Your task to perform on an android device: change the clock display to analog Image 0: 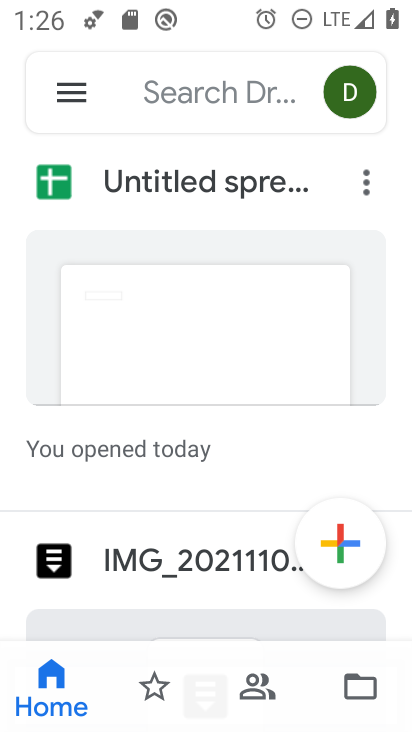
Step 0: press home button
Your task to perform on an android device: change the clock display to analog Image 1: 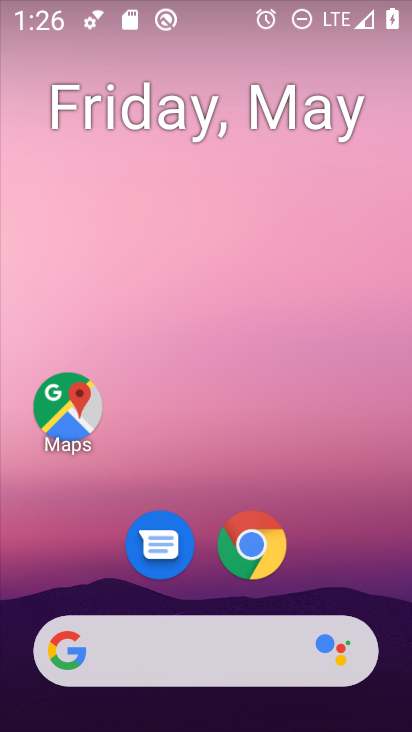
Step 1: drag from (316, 529) to (295, 269)
Your task to perform on an android device: change the clock display to analog Image 2: 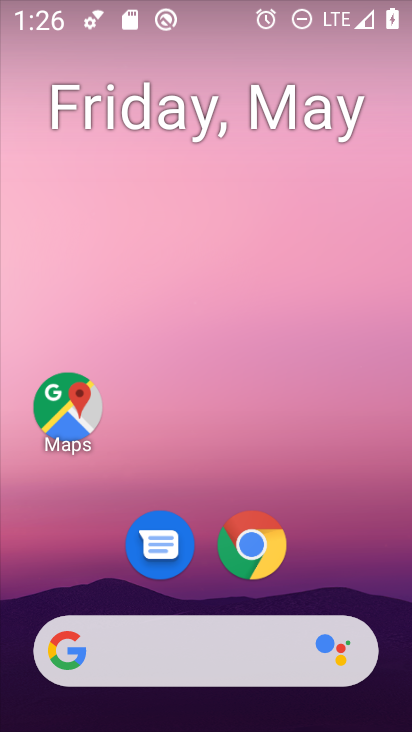
Step 2: drag from (368, 567) to (363, 215)
Your task to perform on an android device: change the clock display to analog Image 3: 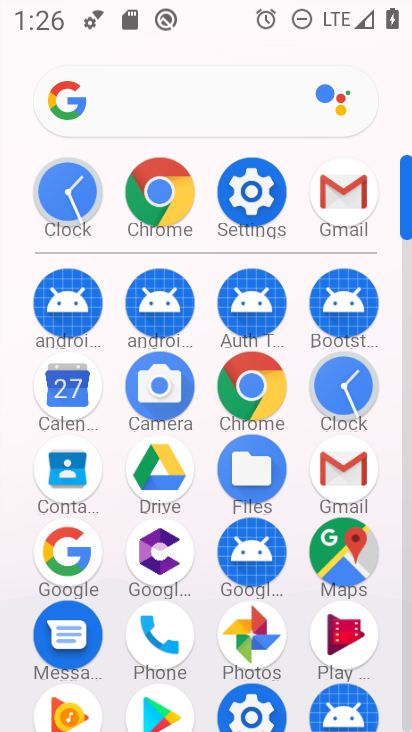
Step 3: click (338, 371)
Your task to perform on an android device: change the clock display to analog Image 4: 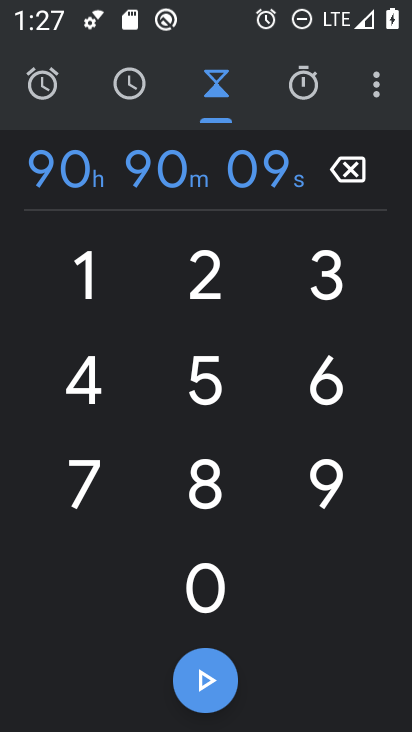
Step 4: click (368, 83)
Your task to perform on an android device: change the clock display to analog Image 5: 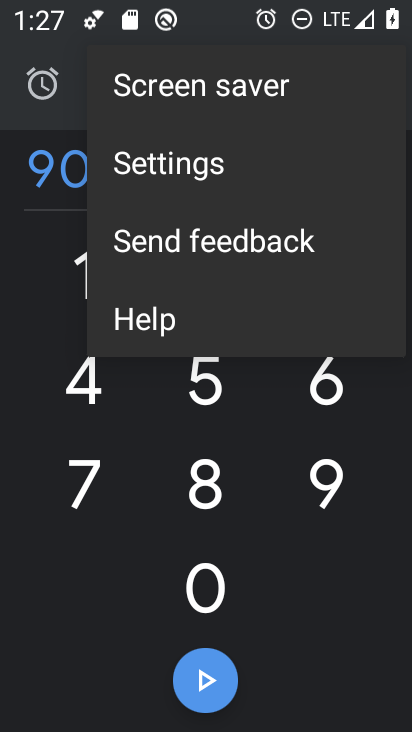
Step 5: click (184, 146)
Your task to perform on an android device: change the clock display to analog Image 6: 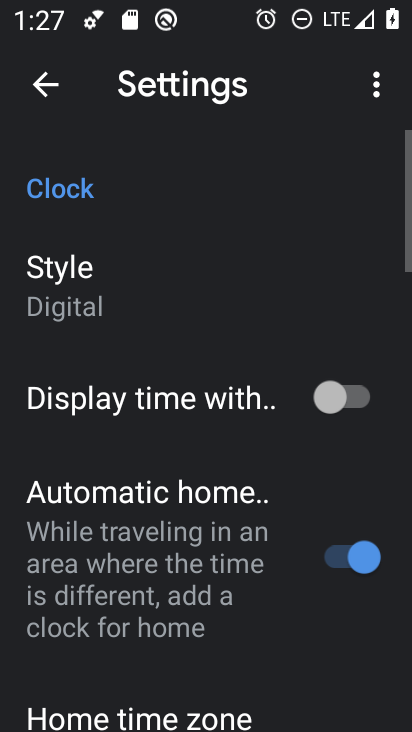
Step 6: click (110, 289)
Your task to perform on an android device: change the clock display to analog Image 7: 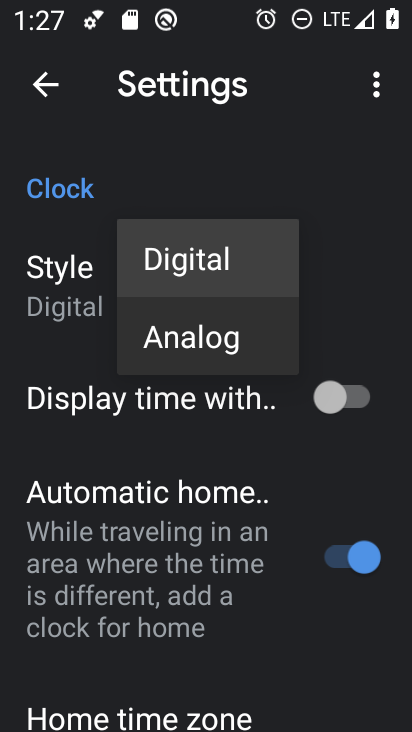
Step 7: click (190, 338)
Your task to perform on an android device: change the clock display to analog Image 8: 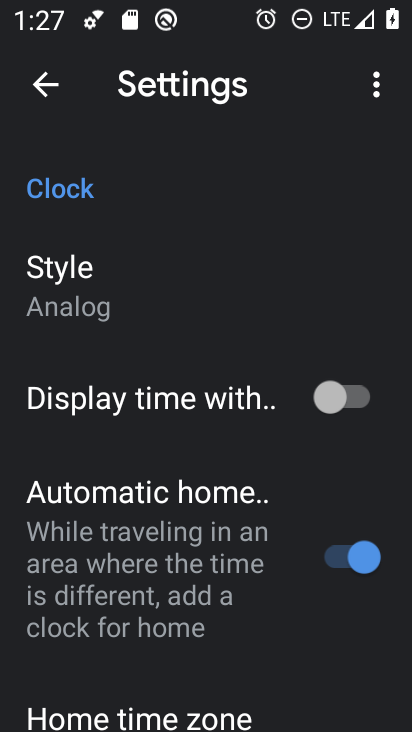
Step 8: task complete